Your task to perform on an android device: Open Reddit.com Image 0: 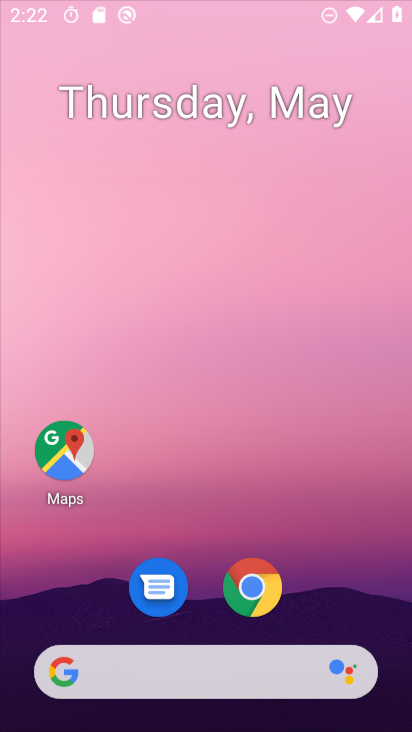
Step 0: click (311, 143)
Your task to perform on an android device: Open Reddit.com Image 1: 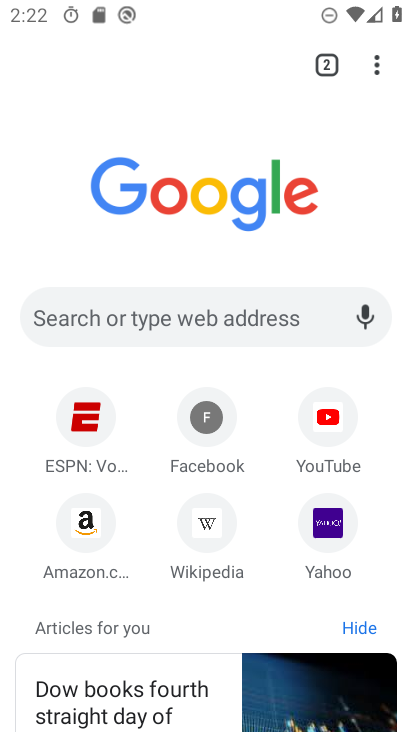
Step 1: click (279, 306)
Your task to perform on an android device: Open Reddit.com Image 2: 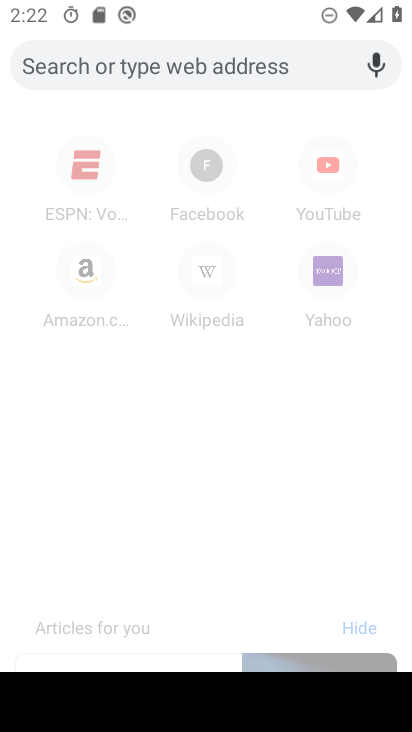
Step 2: type "reddit.com"
Your task to perform on an android device: Open Reddit.com Image 3: 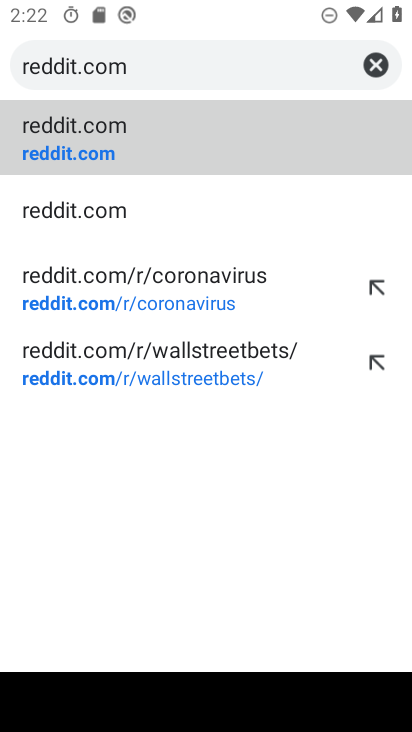
Step 3: click (43, 150)
Your task to perform on an android device: Open Reddit.com Image 4: 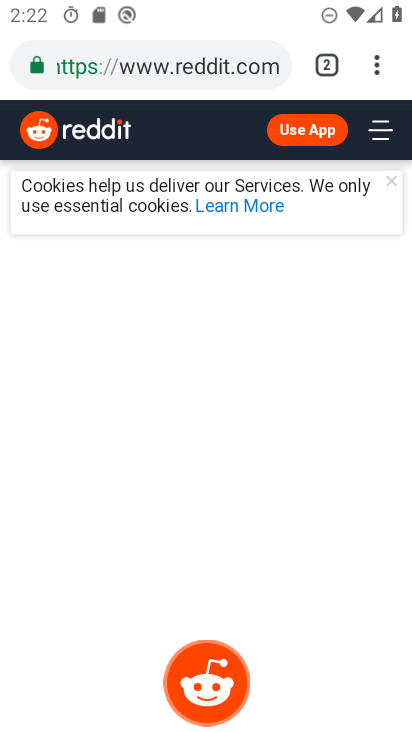
Step 4: task complete